Your task to perform on an android device: Open Google Maps Image 0: 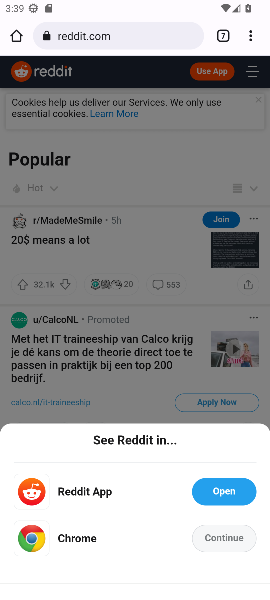
Step 0: press back button
Your task to perform on an android device: Open Google Maps Image 1: 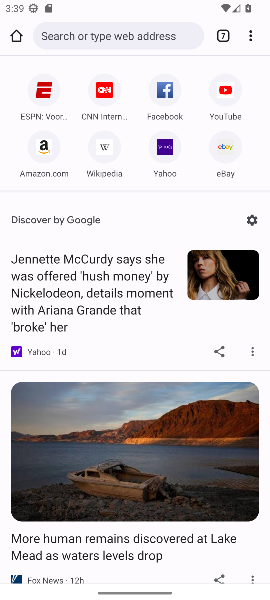
Step 1: press home button
Your task to perform on an android device: Open Google Maps Image 2: 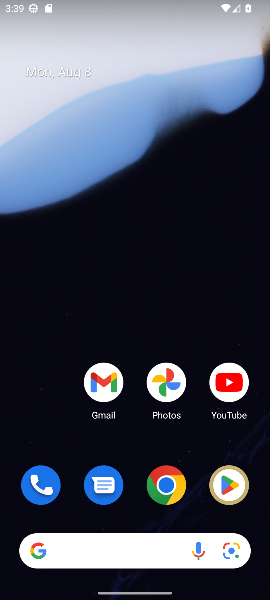
Step 2: press back button
Your task to perform on an android device: Open Google Maps Image 3: 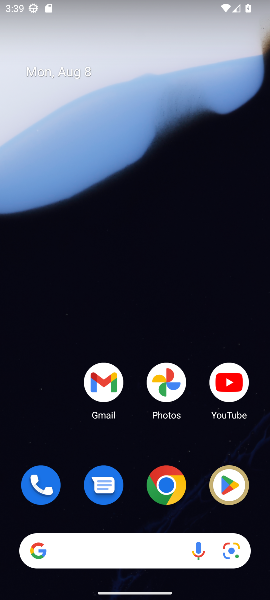
Step 3: drag from (173, 506) to (84, 117)
Your task to perform on an android device: Open Google Maps Image 4: 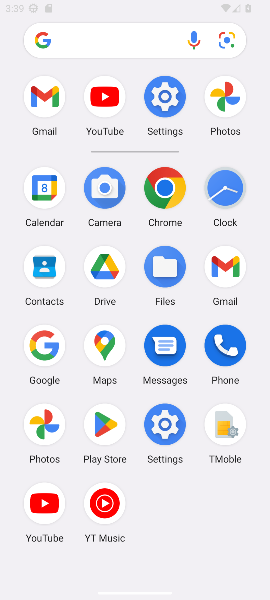
Step 4: drag from (165, 339) to (127, 118)
Your task to perform on an android device: Open Google Maps Image 5: 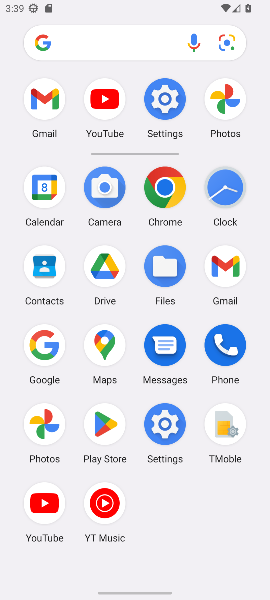
Step 5: drag from (171, 370) to (130, 97)
Your task to perform on an android device: Open Google Maps Image 6: 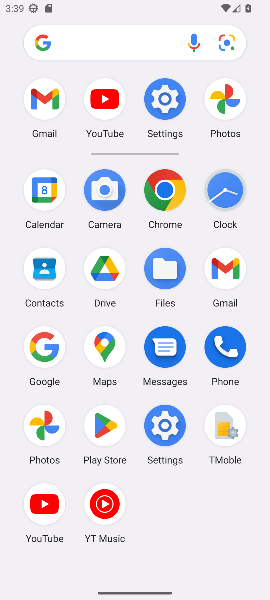
Step 6: click (100, 352)
Your task to perform on an android device: Open Google Maps Image 7: 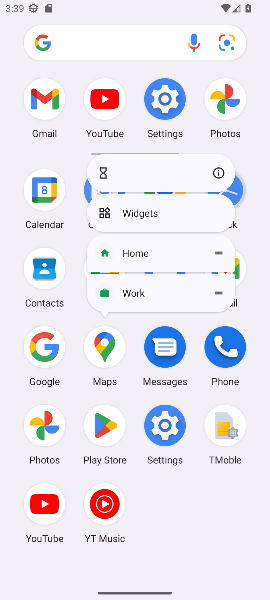
Step 7: click (100, 352)
Your task to perform on an android device: Open Google Maps Image 8: 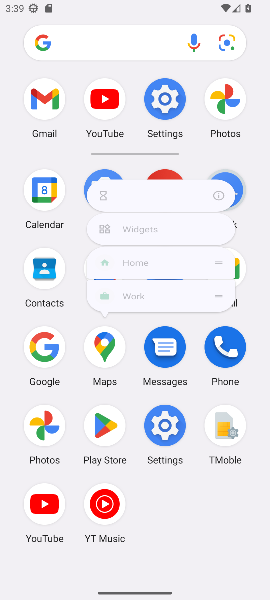
Step 8: click (100, 352)
Your task to perform on an android device: Open Google Maps Image 9: 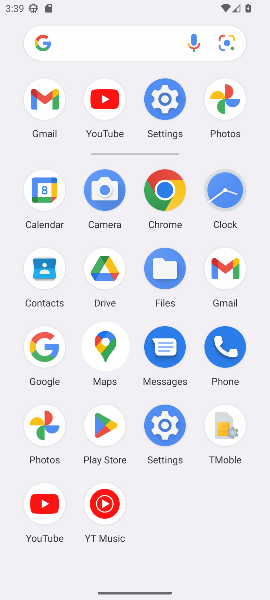
Step 9: click (100, 353)
Your task to perform on an android device: Open Google Maps Image 10: 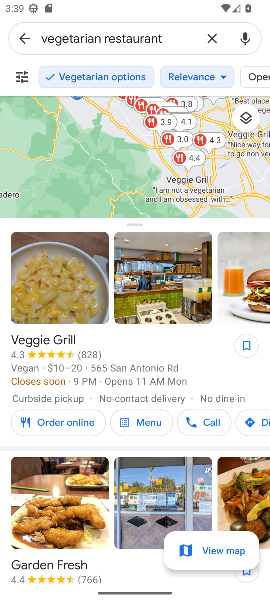
Step 10: click (210, 33)
Your task to perform on an android device: Open Google Maps Image 11: 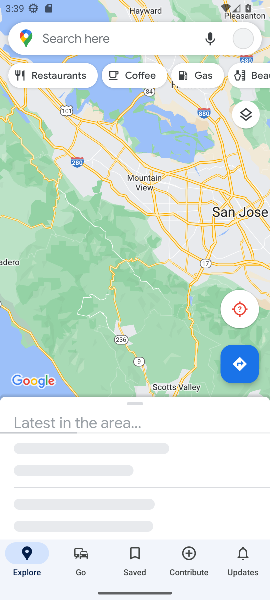
Step 11: task complete